Your task to perform on an android device: Open internet settings Image 0: 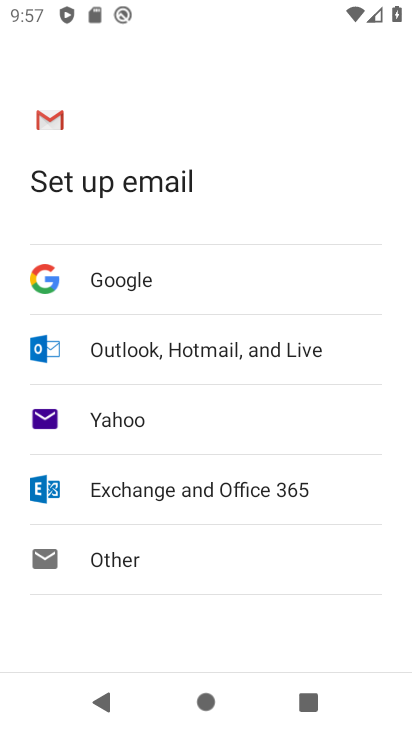
Step 0: press home button
Your task to perform on an android device: Open internet settings Image 1: 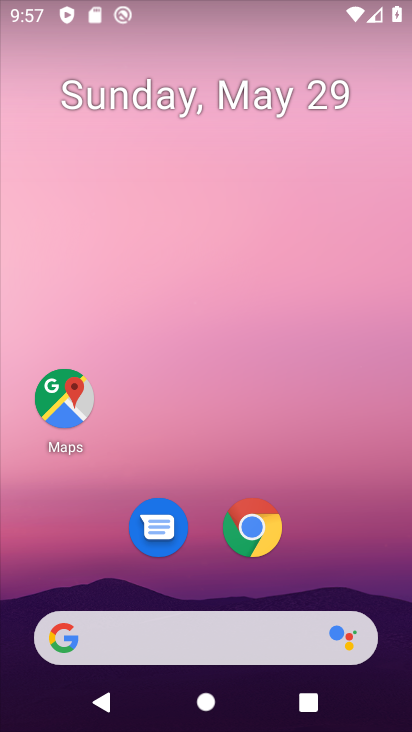
Step 1: drag from (315, 560) to (286, 167)
Your task to perform on an android device: Open internet settings Image 2: 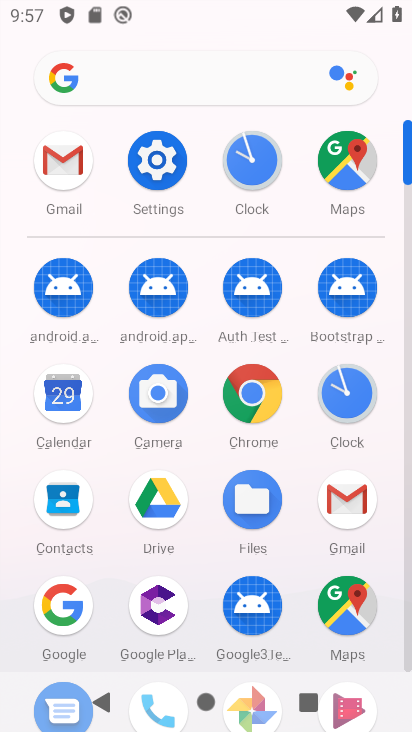
Step 2: click (167, 160)
Your task to perform on an android device: Open internet settings Image 3: 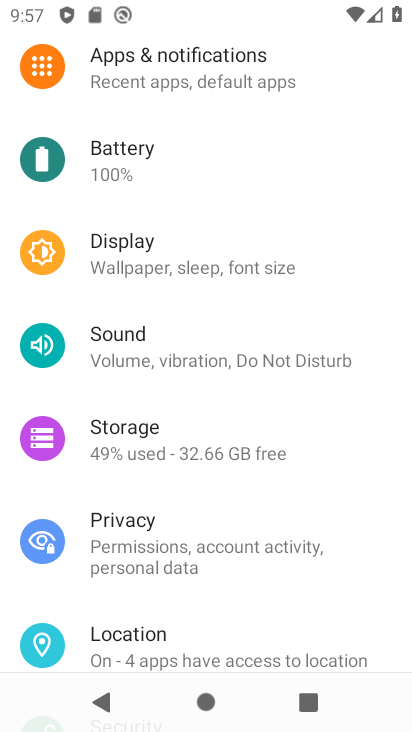
Step 3: drag from (225, 125) to (286, 551)
Your task to perform on an android device: Open internet settings Image 4: 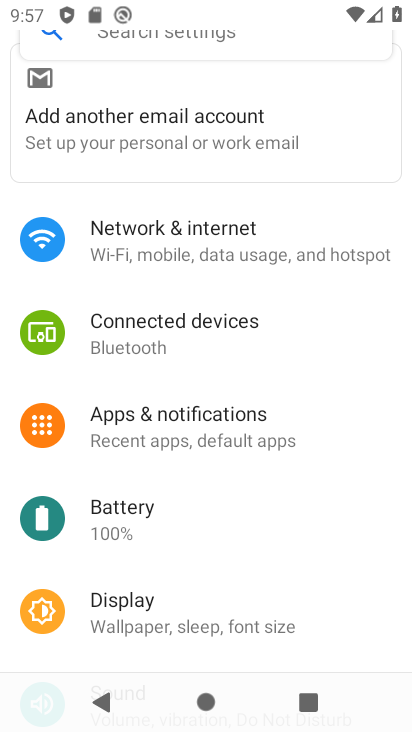
Step 4: click (231, 231)
Your task to perform on an android device: Open internet settings Image 5: 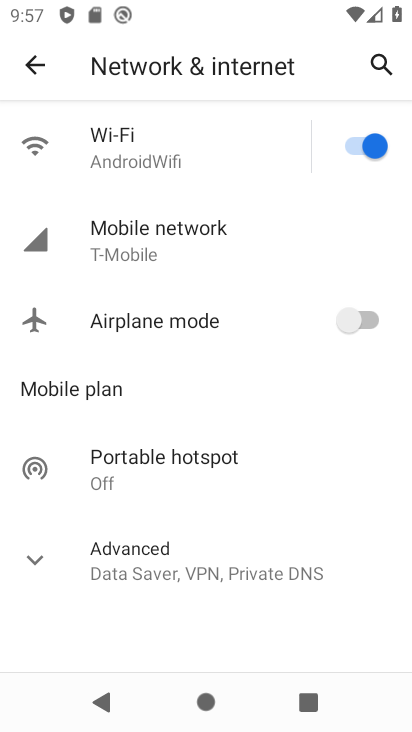
Step 5: task complete